Your task to perform on an android device: turn off notifications settings in the gmail app Image 0: 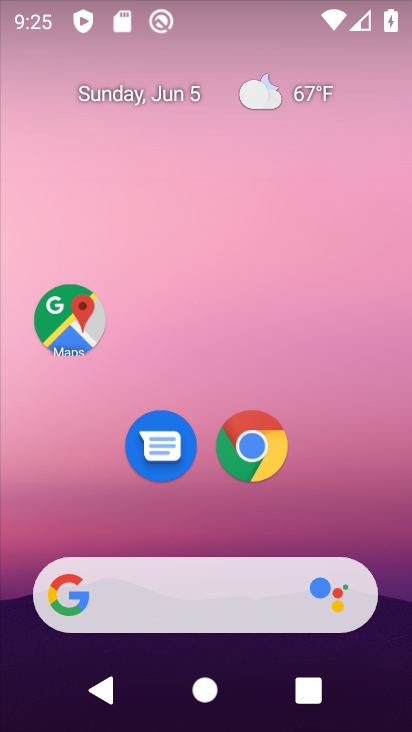
Step 0: drag from (208, 495) to (213, 156)
Your task to perform on an android device: turn off notifications settings in the gmail app Image 1: 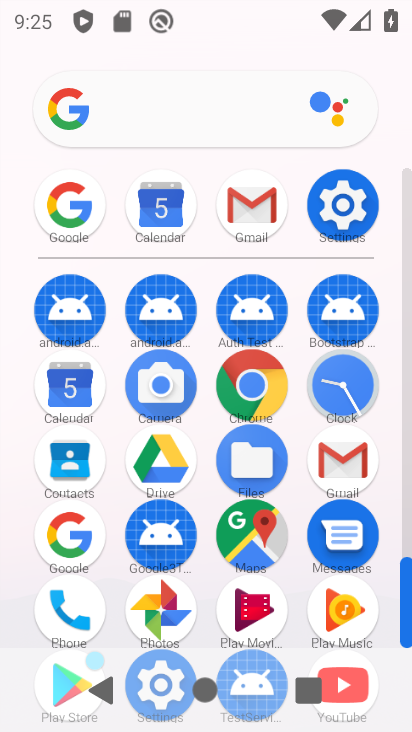
Step 1: click (254, 198)
Your task to perform on an android device: turn off notifications settings in the gmail app Image 2: 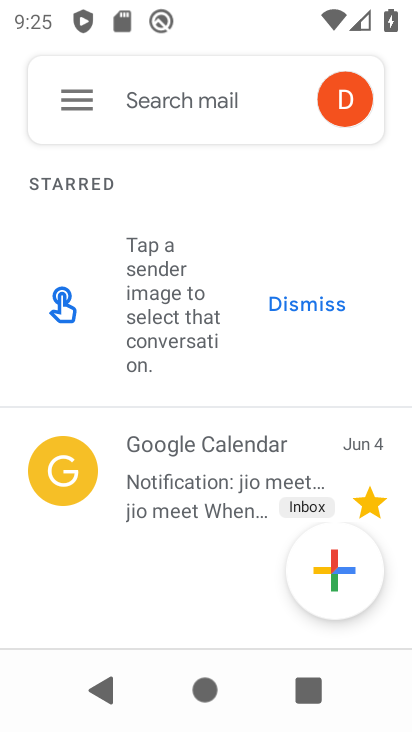
Step 2: click (67, 113)
Your task to perform on an android device: turn off notifications settings in the gmail app Image 3: 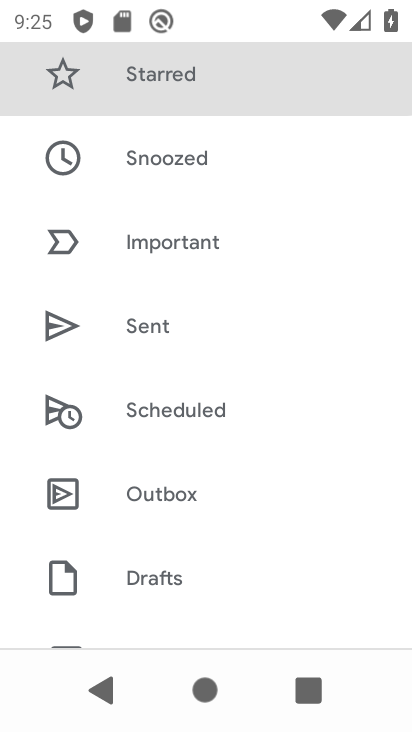
Step 3: drag from (198, 564) to (224, 305)
Your task to perform on an android device: turn off notifications settings in the gmail app Image 4: 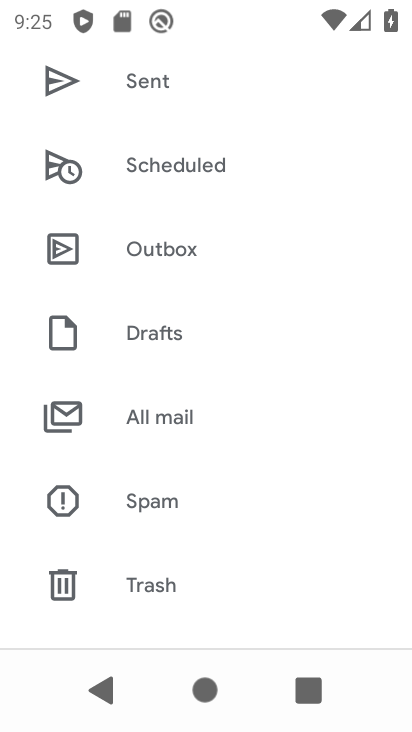
Step 4: drag from (181, 563) to (210, 287)
Your task to perform on an android device: turn off notifications settings in the gmail app Image 5: 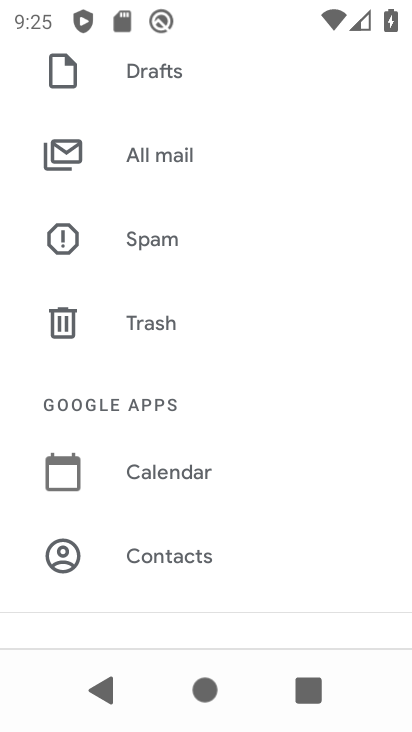
Step 5: drag from (185, 564) to (223, 314)
Your task to perform on an android device: turn off notifications settings in the gmail app Image 6: 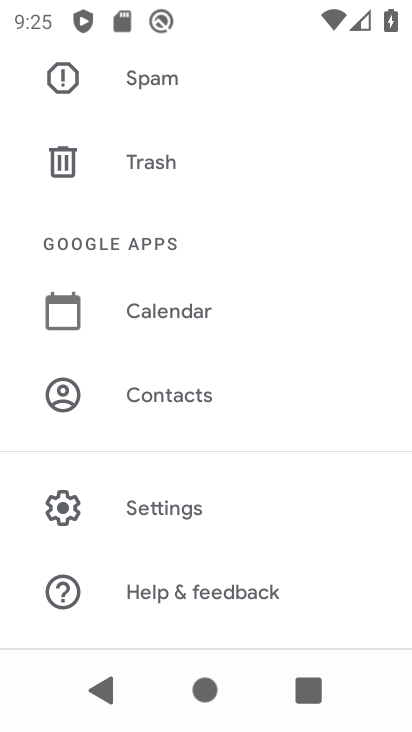
Step 6: click (174, 507)
Your task to perform on an android device: turn off notifications settings in the gmail app Image 7: 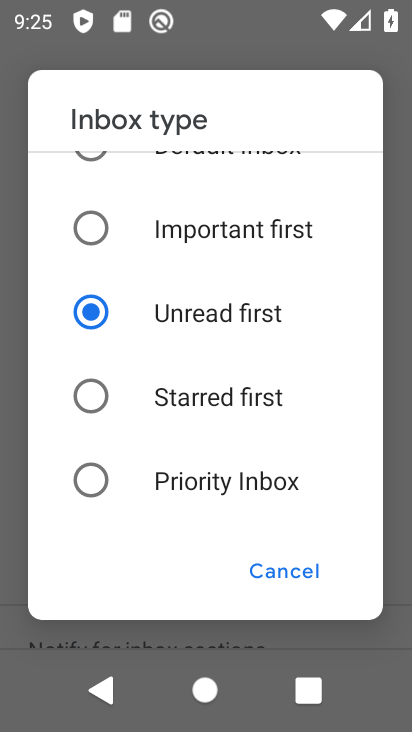
Step 7: click (263, 571)
Your task to perform on an android device: turn off notifications settings in the gmail app Image 8: 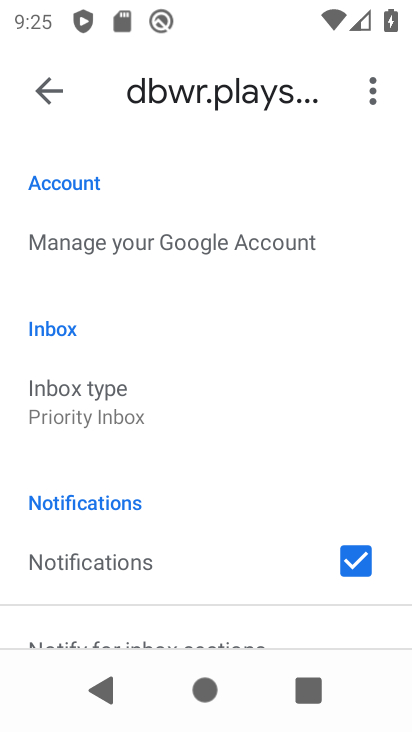
Step 8: drag from (163, 566) to (233, 253)
Your task to perform on an android device: turn off notifications settings in the gmail app Image 9: 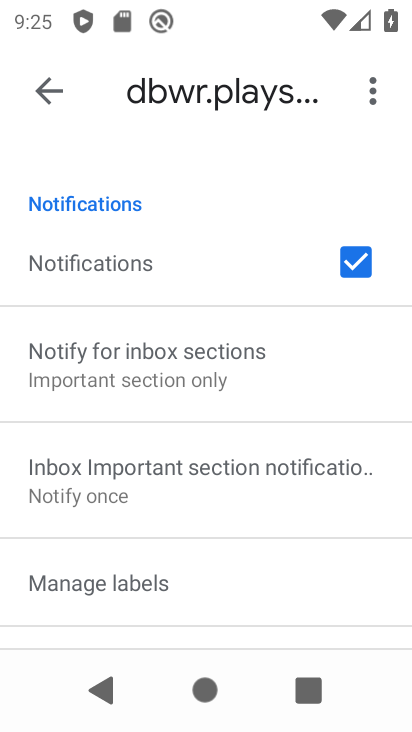
Step 9: drag from (172, 606) to (204, 364)
Your task to perform on an android device: turn off notifications settings in the gmail app Image 10: 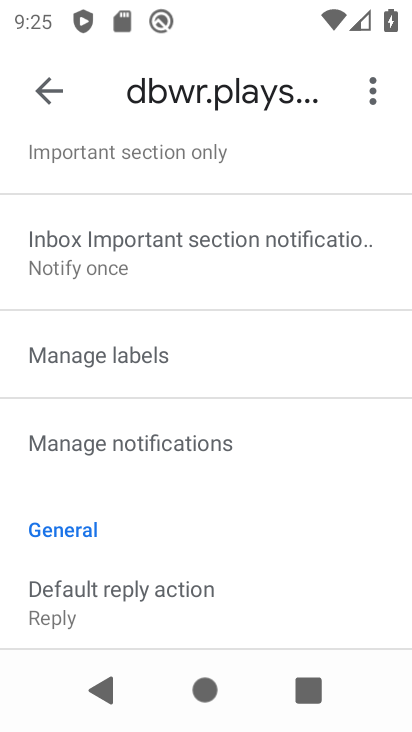
Step 10: drag from (193, 575) to (210, 427)
Your task to perform on an android device: turn off notifications settings in the gmail app Image 11: 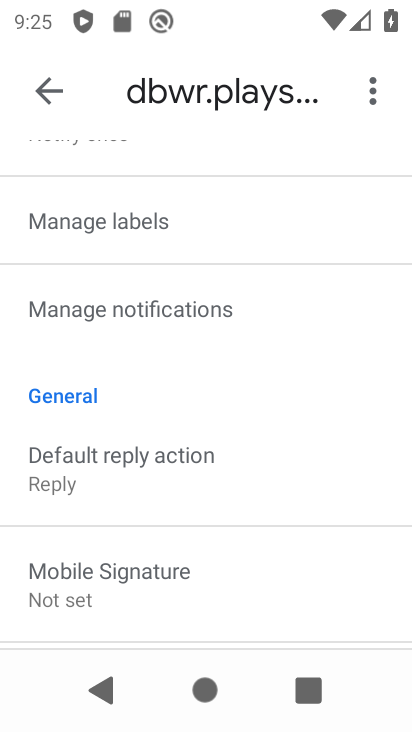
Step 11: click (187, 309)
Your task to perform on an android device: turn off notifications settings in the gmail app Image 12: 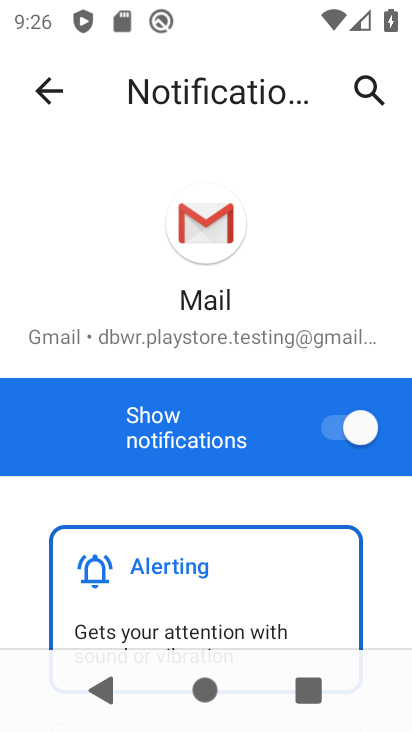
Step 12: click (335, 433)
Your task to perform on an android device: turn off notifications settings in the gmail app Image 13: 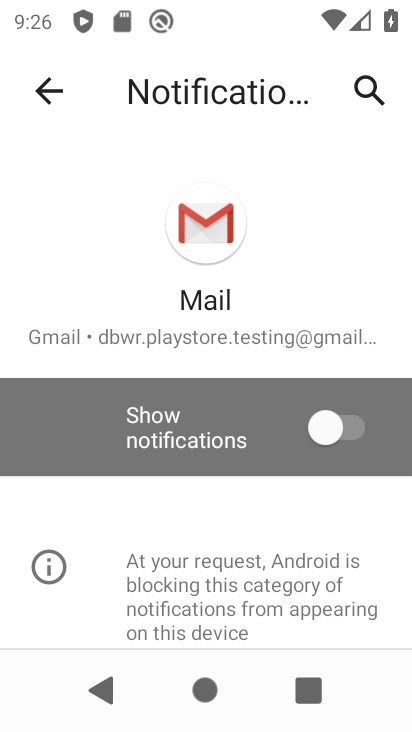
Step 13: task complete